Your task to perform on an android device: install app "Booking.com: Hotels and more" Image 0: 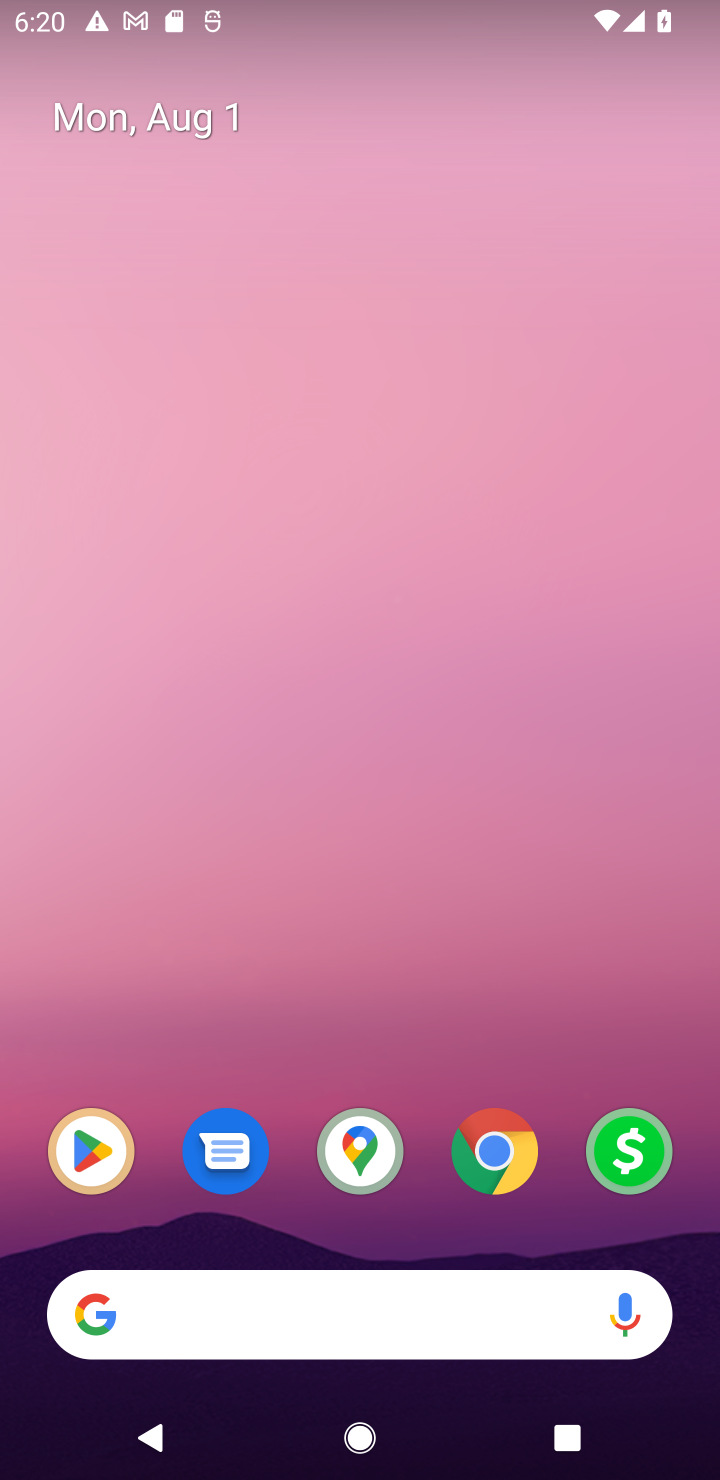
Step 0: drag from (459, 1259) to (419, 63)
Your task to perform on an android device: install app "Booking.com: Hotels and more" Image 1: 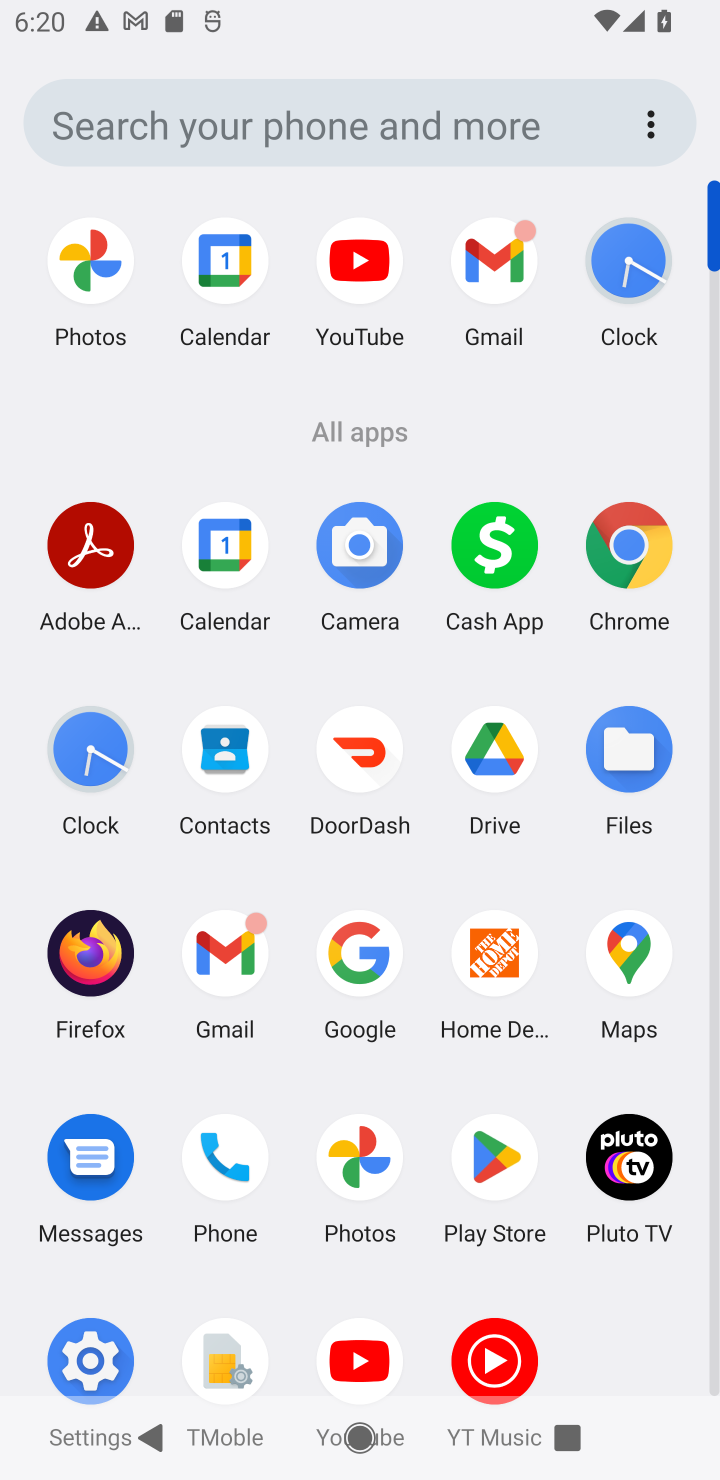
Step 1: click (503, 1157)
Your task to perform on an android device: install app "Booking.com: Hotels and more" Image 2: 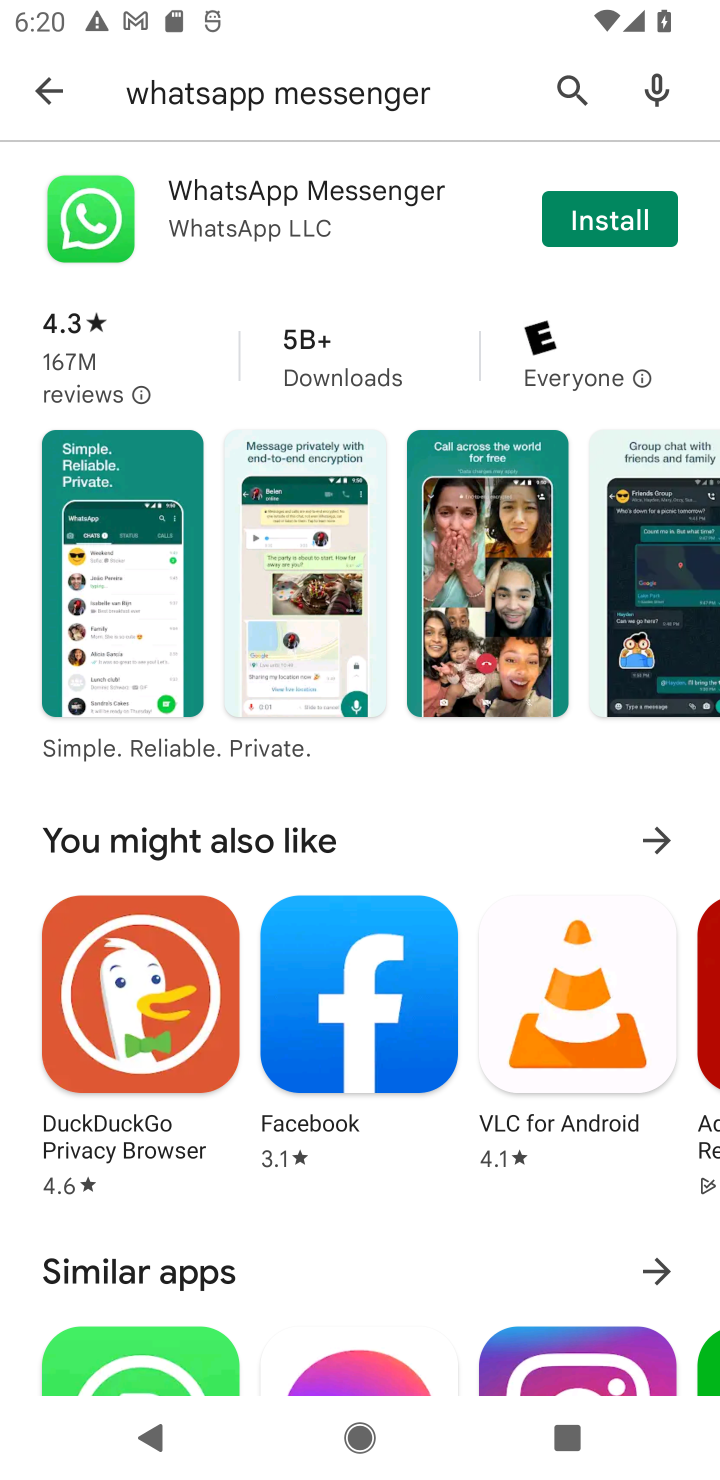
Step 2: click (586, 90)
Your task to perform on an android device: install app "Booking.com: Hotels and more" Image 3: 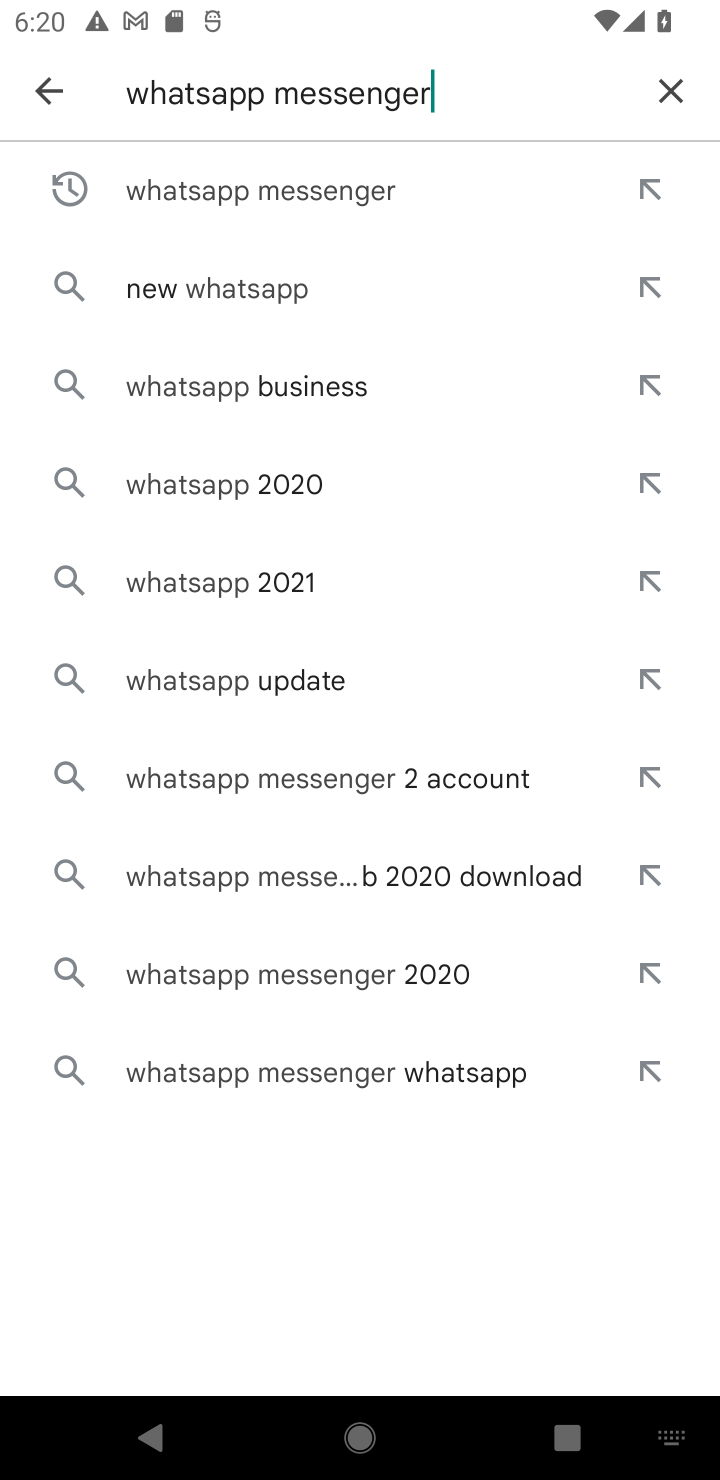
Step 3: click (673, 100)
Your task to perform on an android device: install app "Booking.com: Hotels and more" Image 4: 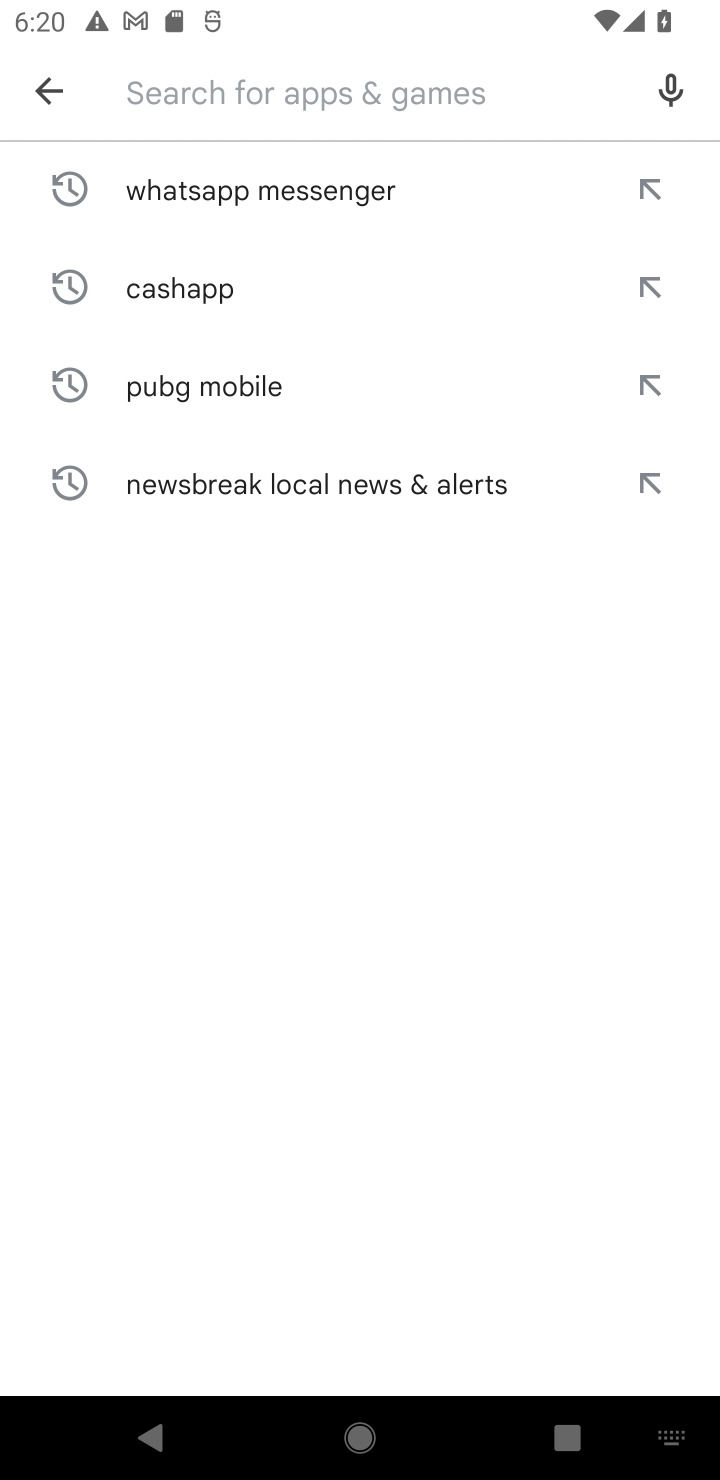
Step 4: type "booking.com:hotel and more"
Your task to perform on an android device: install app "Booking.com: Hotels and more" Image 5: 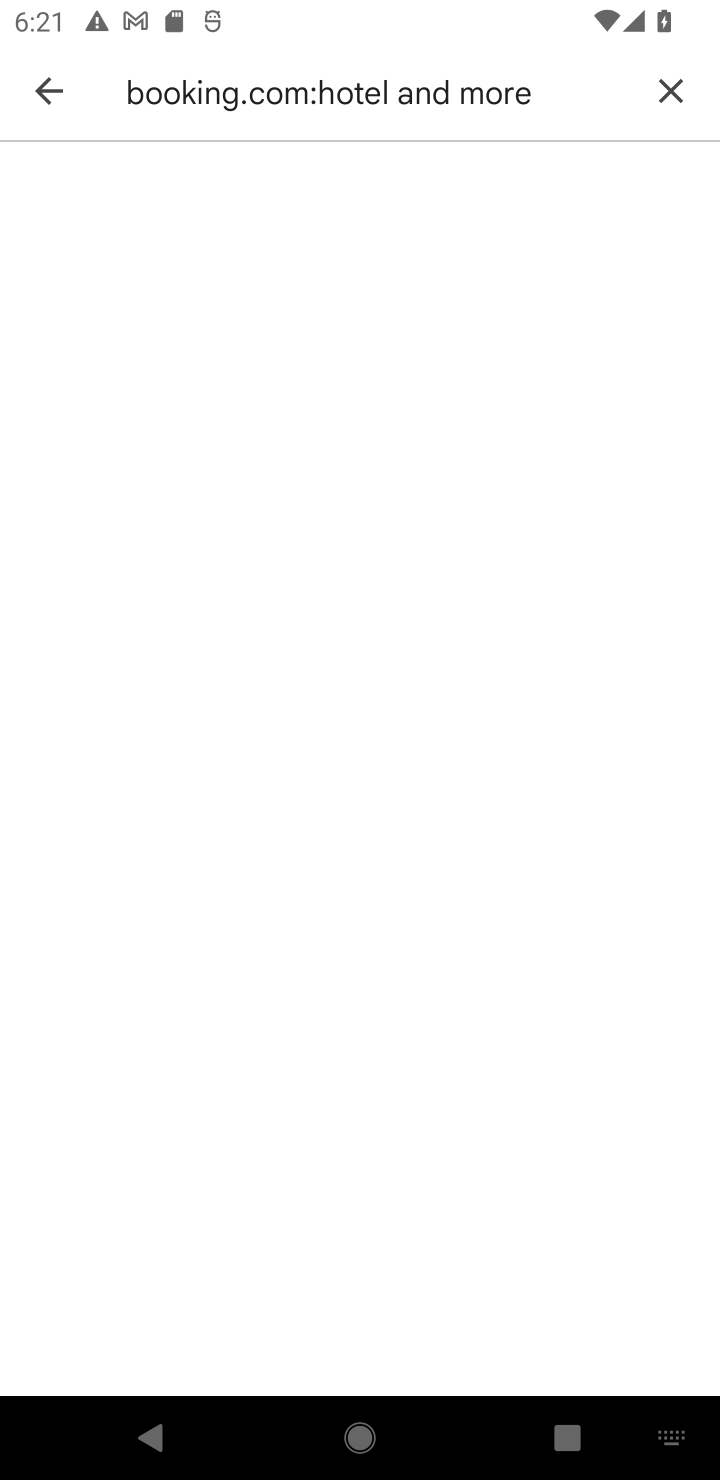
Step 5: click (676, 85)
Your task to perform on an android device: install app "Booking.com: Hotels and more" Image 6: 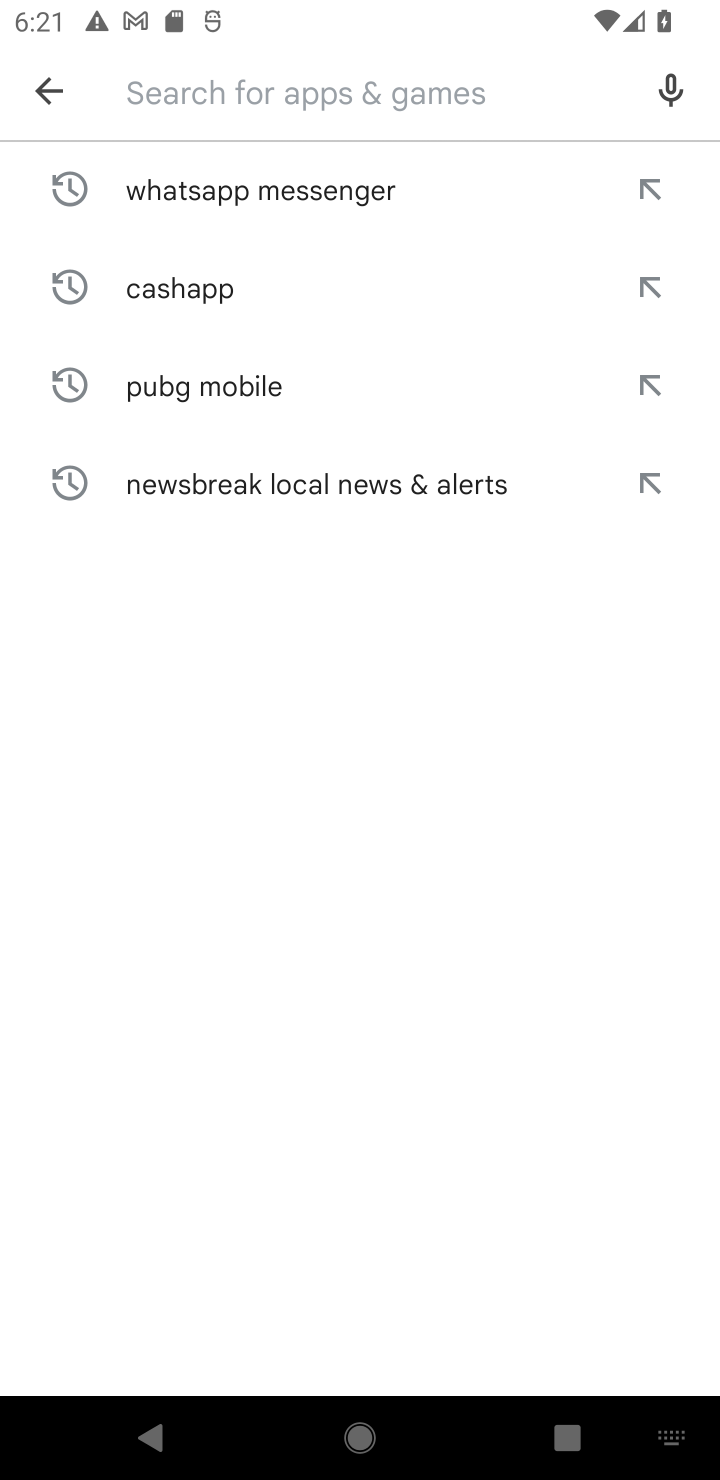
Step 6: type "booking.com: hotels and more"
Your task to perform on an android device: install app "Booking.com: Hotels and more" Image 7: 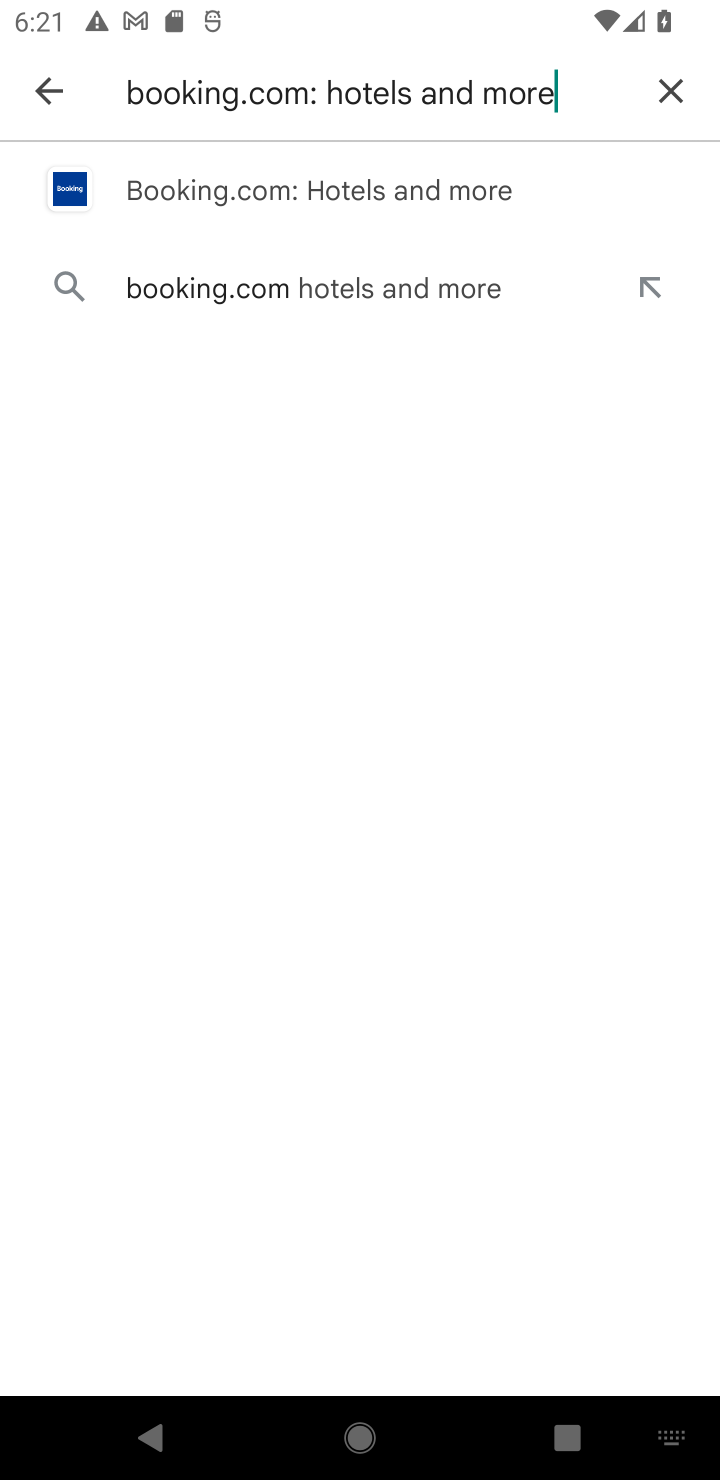
Step 7: click (261, 176)
Your task to perform on an android device: install app "Booking.com: Hotels and more" Image 8: 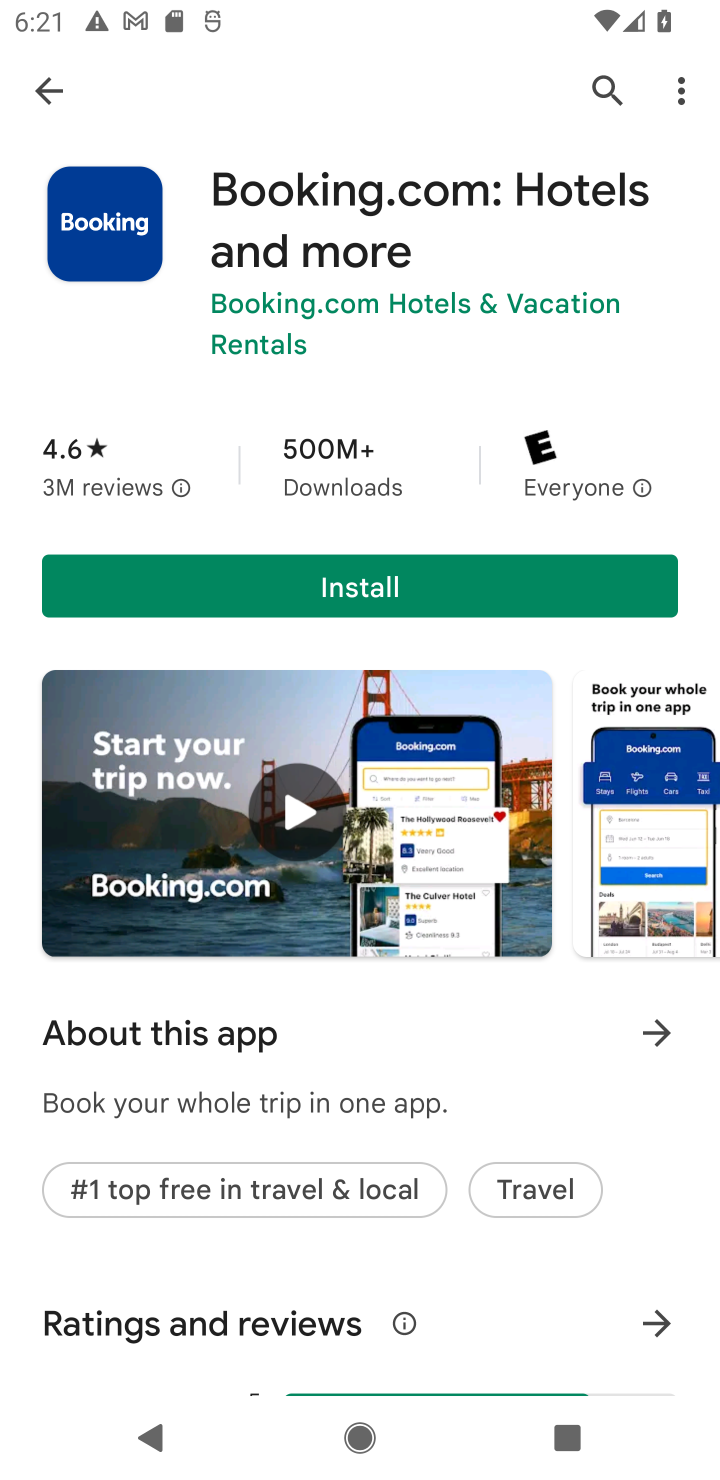
Step 8: click (177, 601)
Your task to perform on an android device: install app "Booking.com: Hotels and more" Image 9: 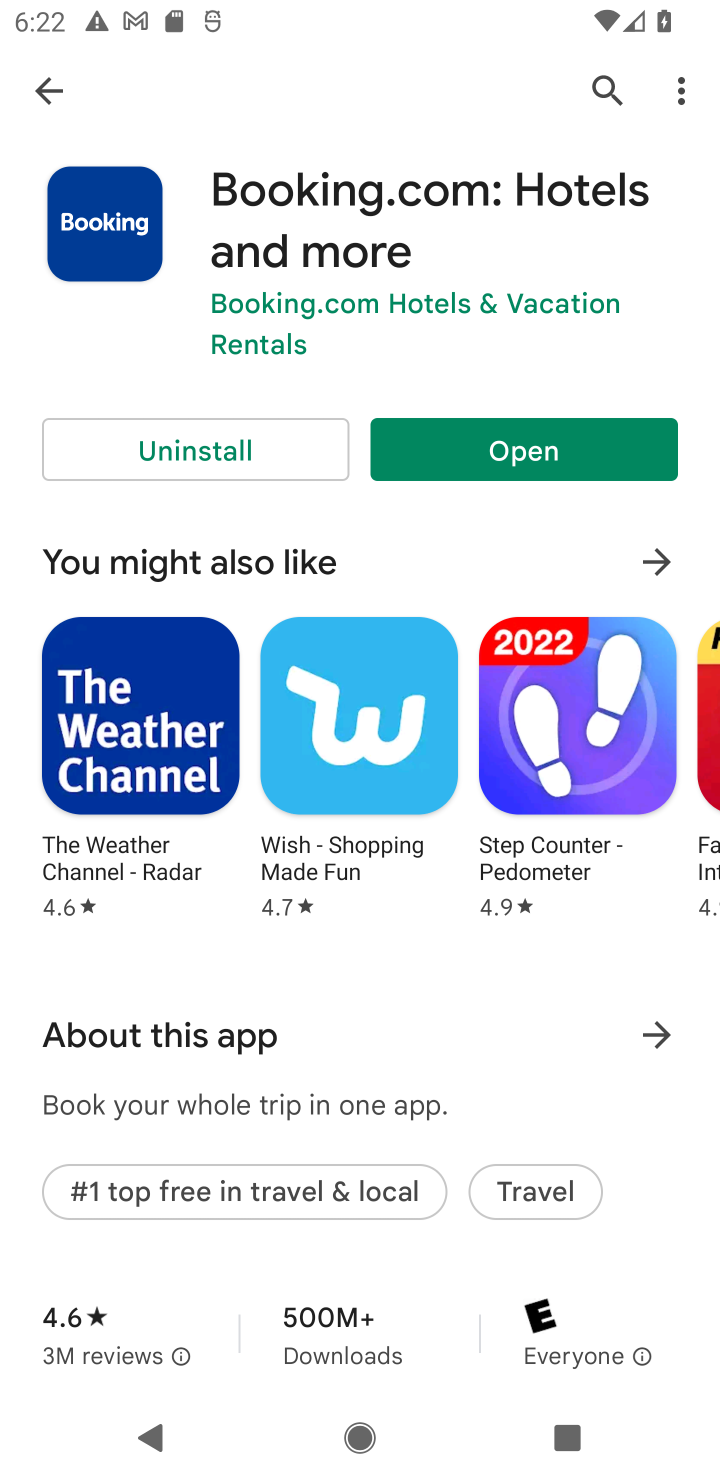
Step 9: task complete